Your task to perform on an android device: add a label to a message in the gmail app Image 0: 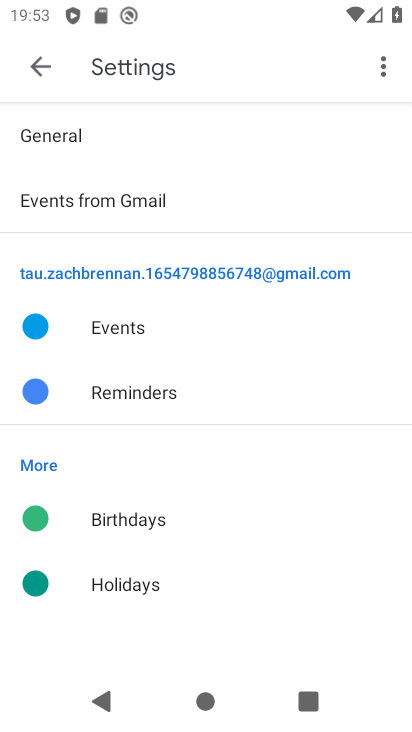
Step 0: press home button
Your task to perform on an android device: add a label to a message in the gmail app Image 1: 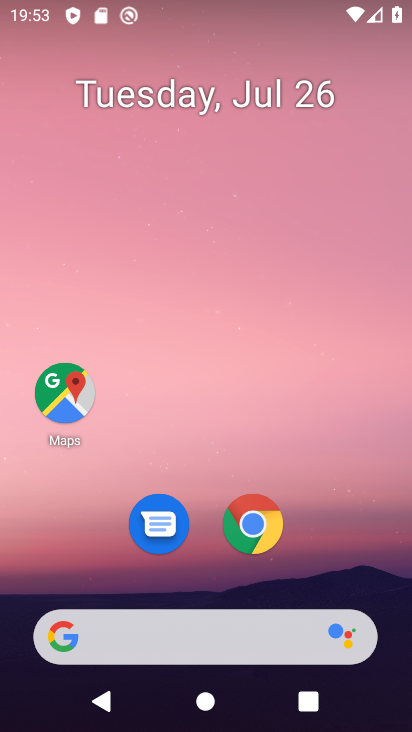
Step 1: drag from (204, 629) to (285, 171)
Your task to perform on an android device: add a label to a message in the gmail app Image 2: 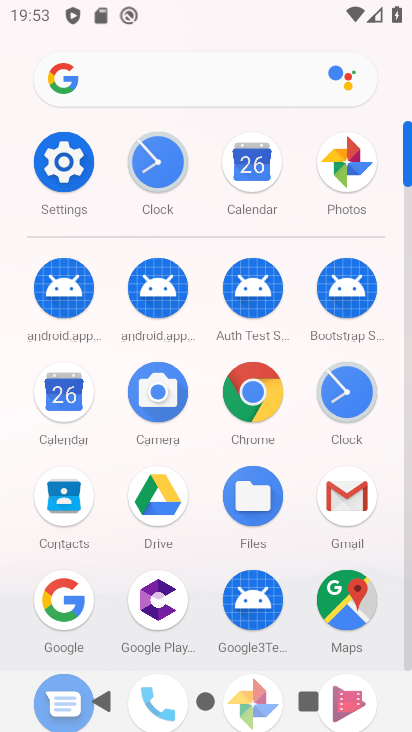
Step 2: click (344, 496)
Your task to perform on an android device: add a label to a message in the gmail app Image 3: 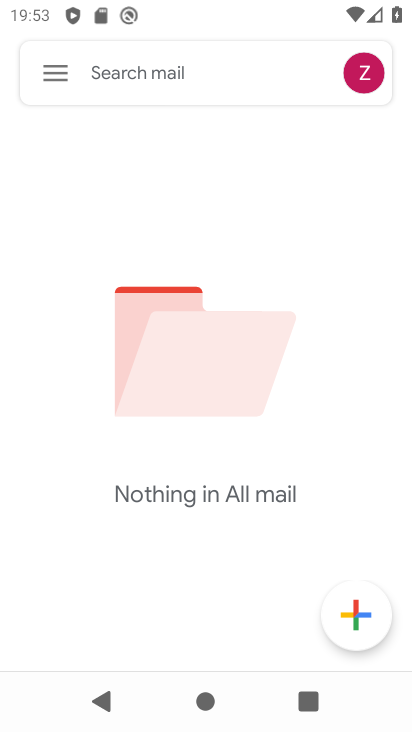
Step 3: click (54, 73)
Your task to perform on an android device: add a label to a message in the gmail app Image 4: 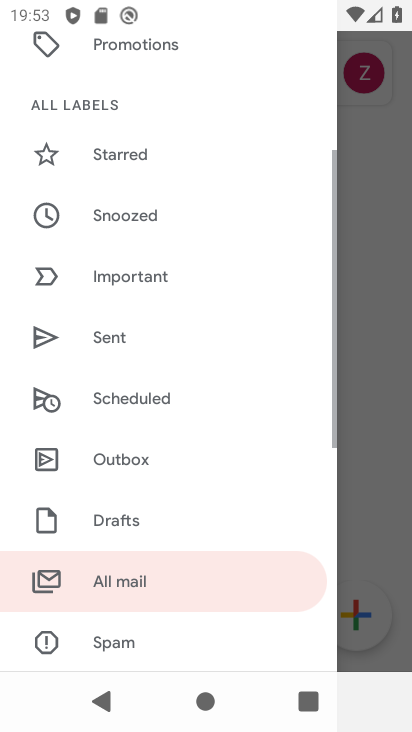
Step 4: drag from (258, 196) to (258, 651)
Your task to perform on an android device: add a label to a message in the gmail app Image 5: 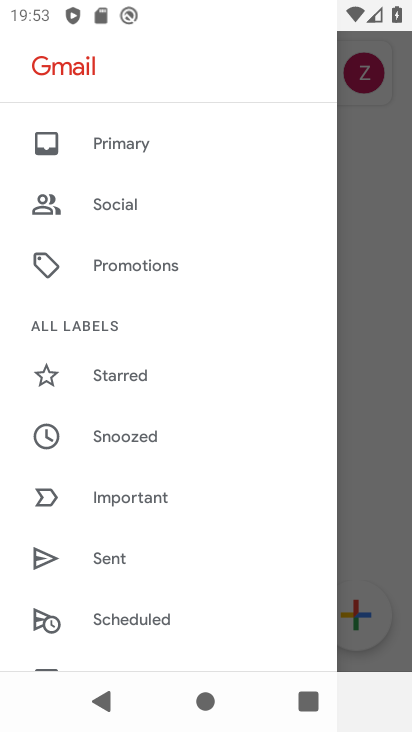
Step 5: click (135, 145)
Your task to perform on an android device: add a label to a message in the gmail app Image 6: 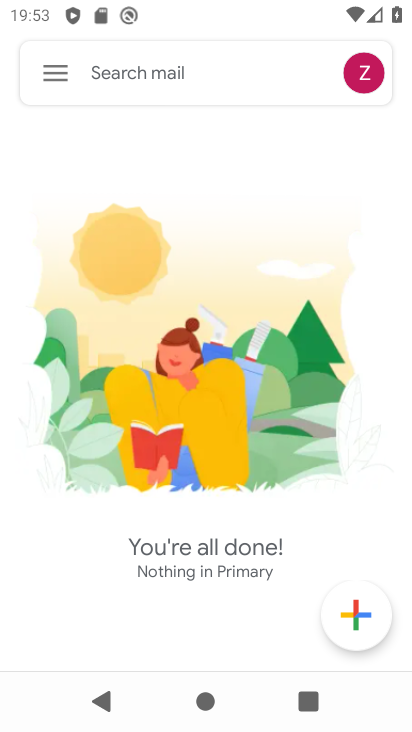
Step 6: task complete